Your task to perform on an android device: Play the last video I watched on Youtube Image 0: 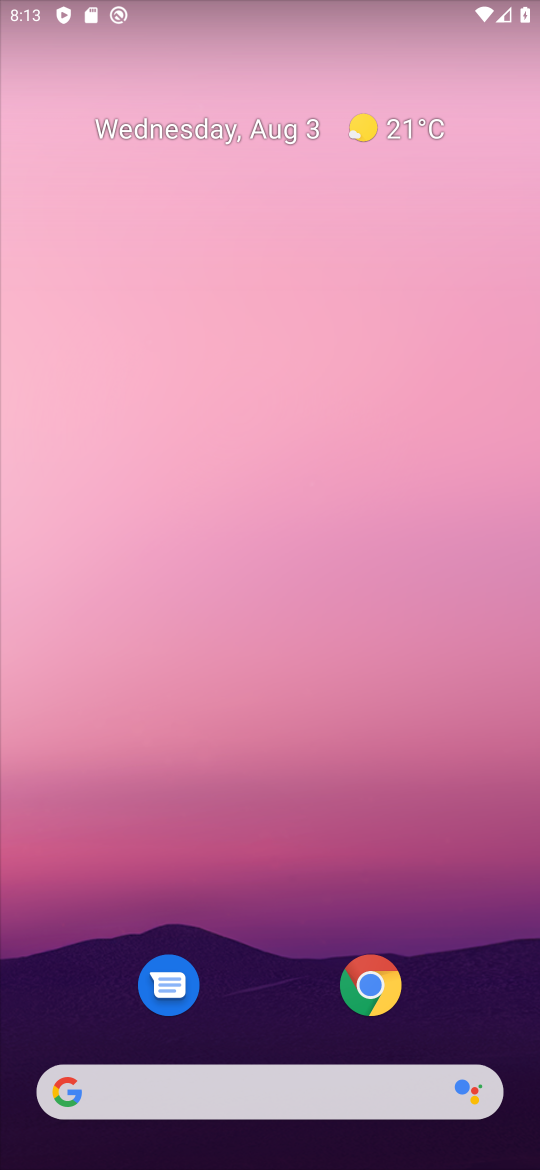
Step 0: drag from (263, 1011) to (274, 293)
Your task to perform on an android device: Play the last video I watched on Youtube Image 1: 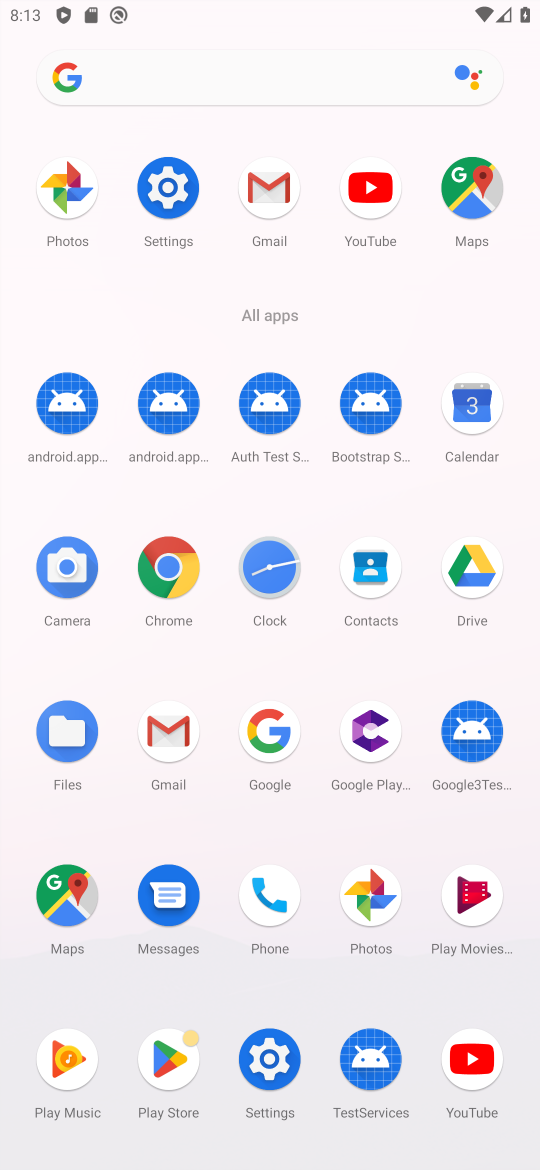
Step 1: click (450, 1050)
Your task to perform on an android device: Play the last video I watched on Youtube Image 2: 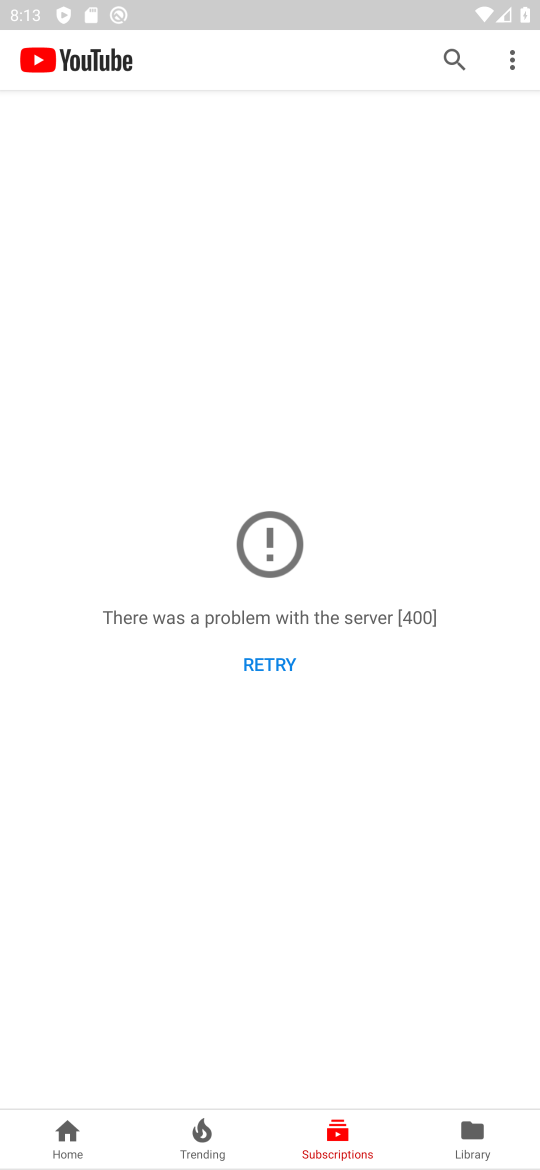
Step 2: click (477, 1153)
Your task to perform on an android device: Play the last video I watched on Youtube Image 3: 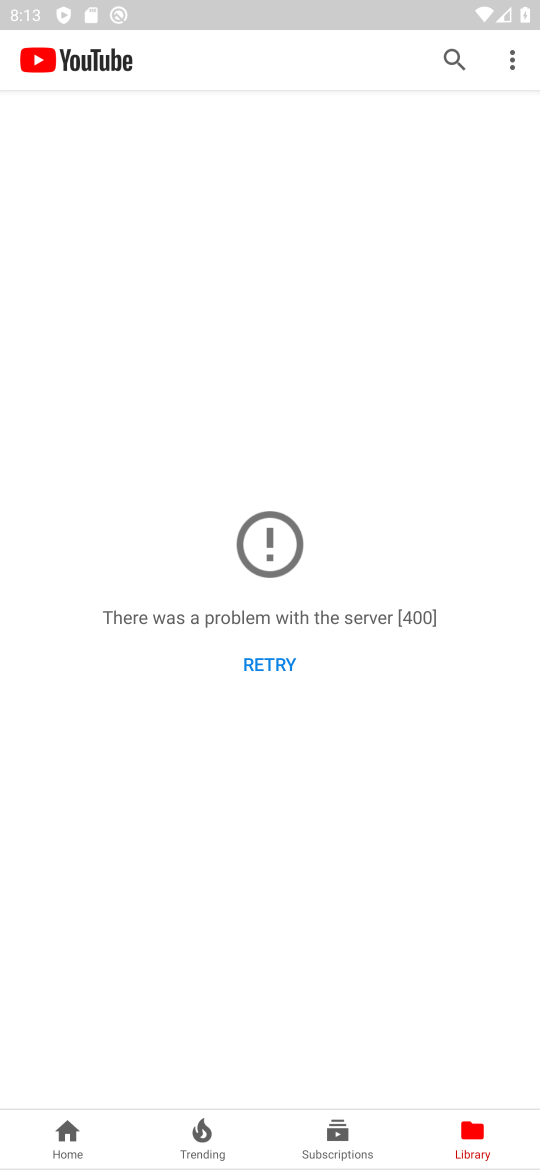
Step 3: click (447, 1128)
Your task to perform on an android device: Play the last video I watched on Youtube Image 4: 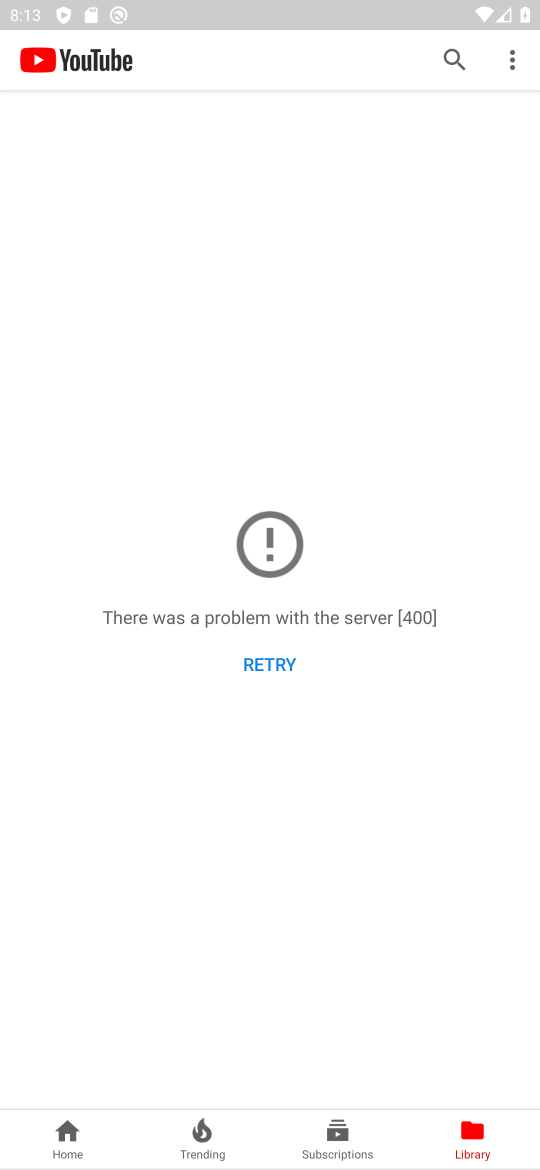
Step 4: click (500, 68)
Your task to perform on an android device: Play the last video I watched on Youtube Image 5: 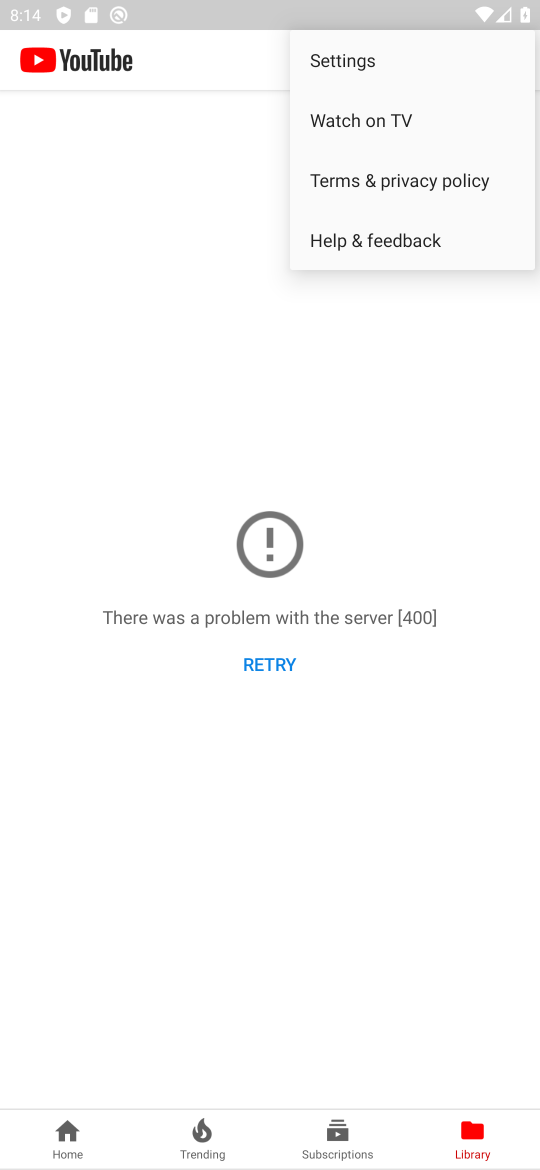
Step 5: task complete